Your task to perform on an android device: open the mobile data screen to see how much data has been used Image 0: 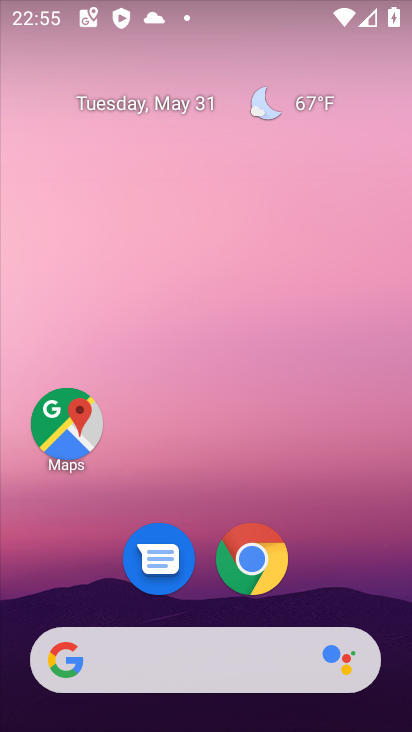
Step 0: drag from (317, 596) to (315, 115)
Your task to perform on an android device: open the mobile data screen to see how much data has been used Image 1: 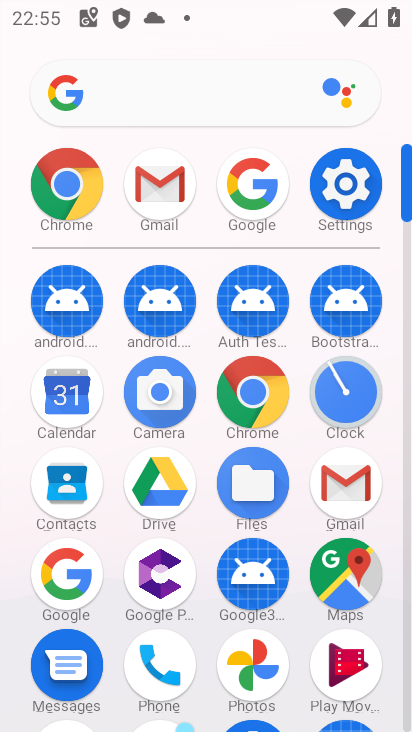
Step 1: click (347, 178)
Your task to perform on an android device: open the mobile data screen to see how much data has been used Image 2: 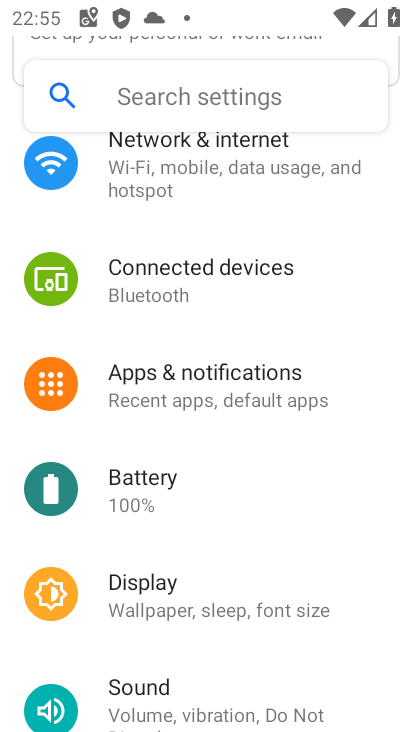
Step 2: click (272, 175)
Your task to perform on an android device: open the mobile data screen to see how much data has been used Image 3: 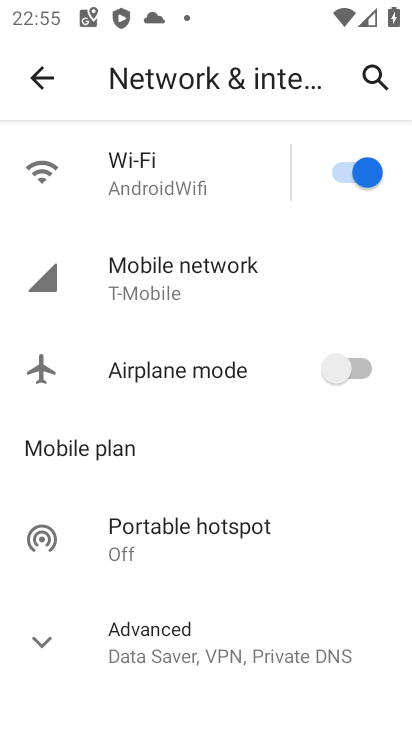
Step 3: click (200, 270)
Your task to perform on an android device: open the mobile data screen to see how much data has been used Image 4: 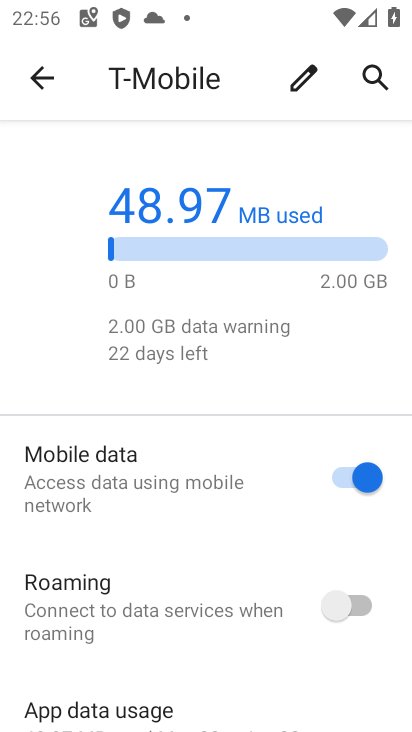
Step 4: task complete